Your task to perform on an android device: Open the web browser Image 0: 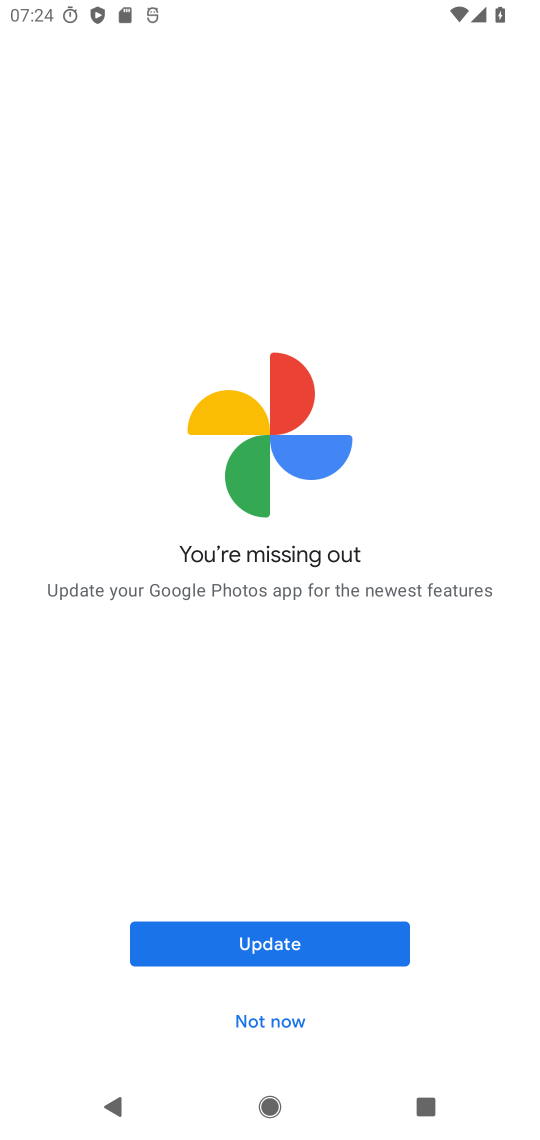
Step 0: press home button
Your task to perform on an android device: Open the web browser Image 1: 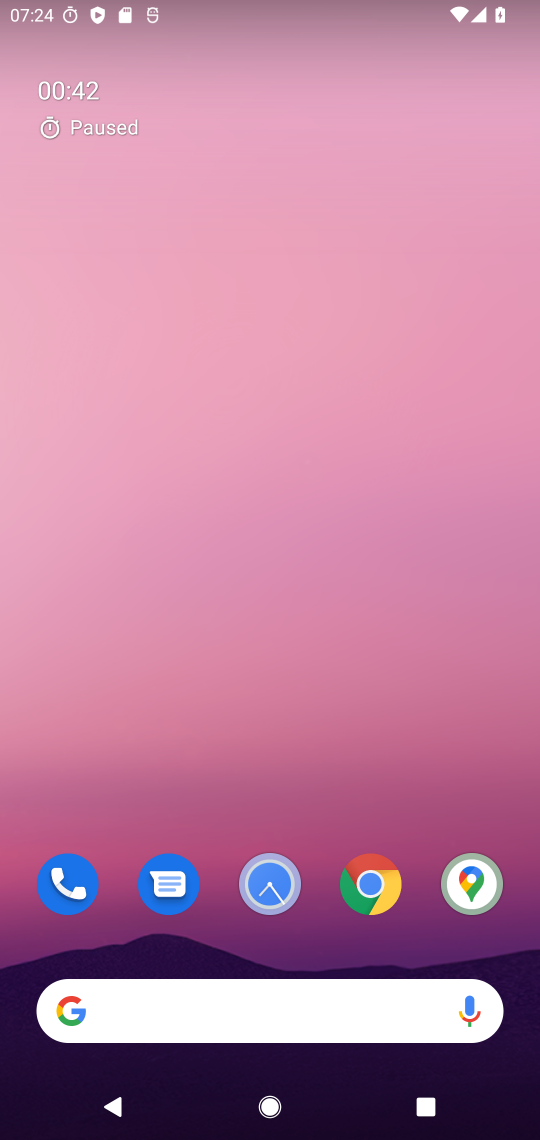
Step 1: click (69, 1018)
Your task to perform on an android device: Open the web browser Image 2: 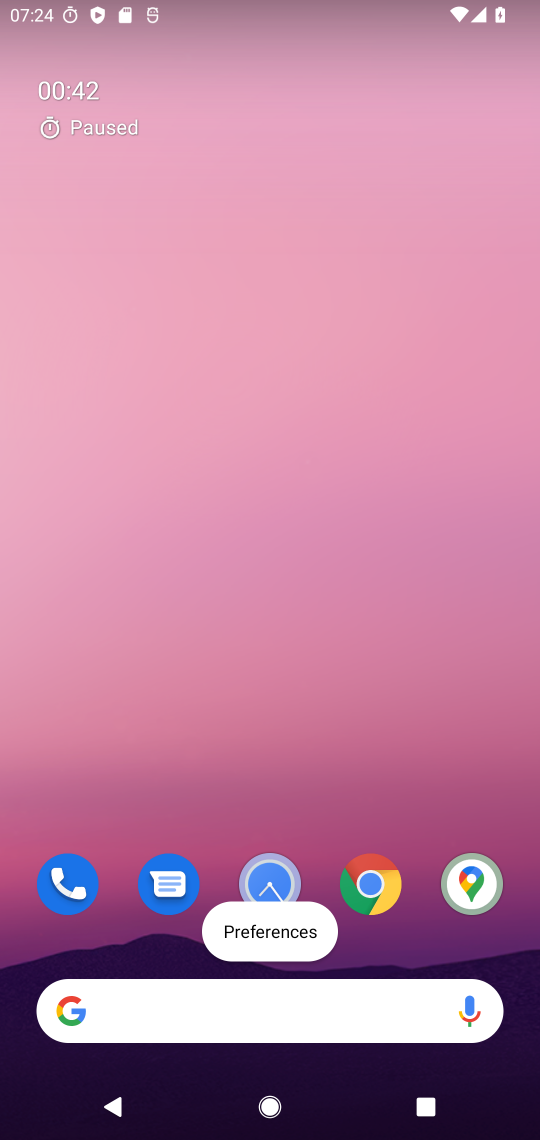
Step 2: click (65, 1007)
Your task to perform on an android device: Open the web browser Image 3: 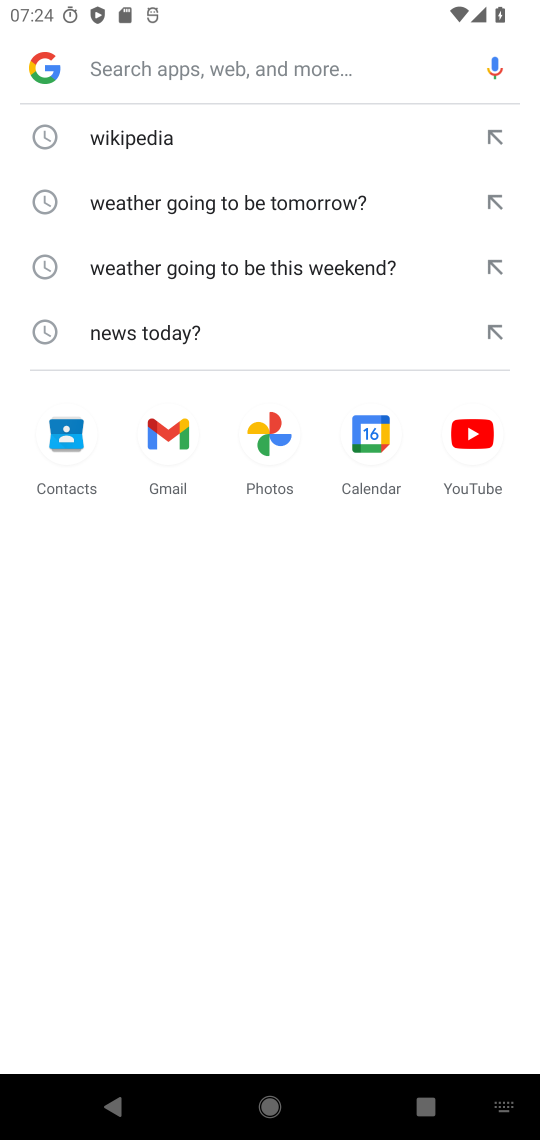
Step 3: click (46, 67)
Your task to perform on an android device: Open the web browser Image 4: 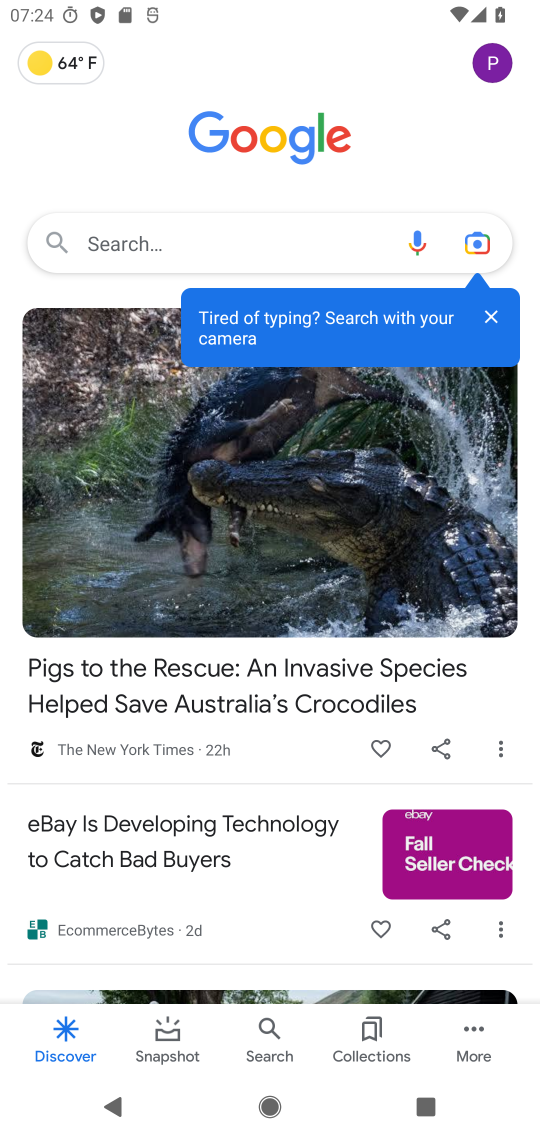
Step 4: task complete